Your task to perform on an android device: turn off notifications settings in the gmail app Image 0: 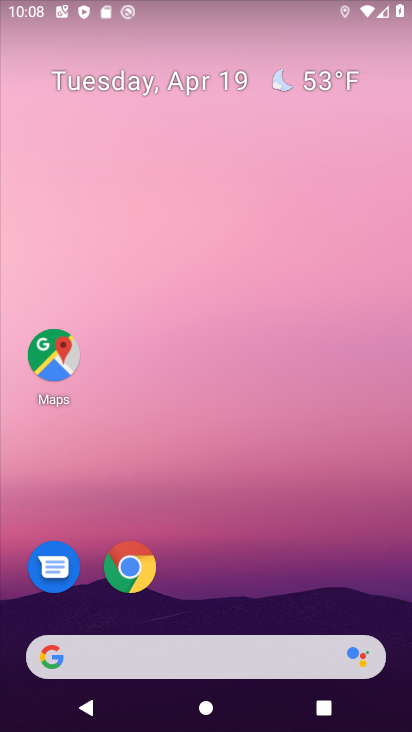
Step 0: drag from (317, 583) to (253, 85)
Your task to perform on an android device: turn off notifications settings in the gmail app Image 1: 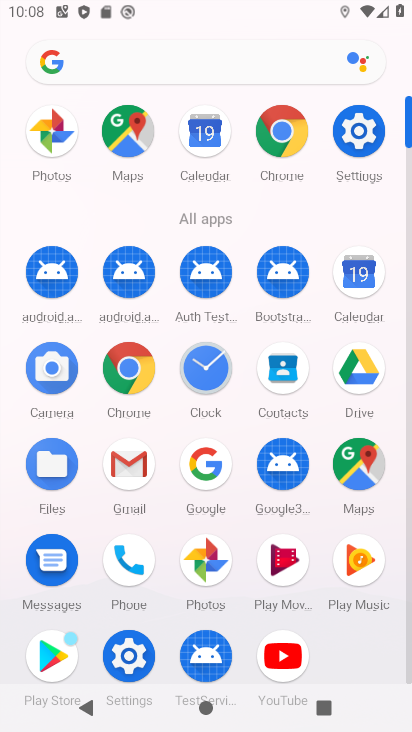
Step 1: click (145, 474)
Your task to perform on an android device: turn off notifications settings in the gmail app Image 2: 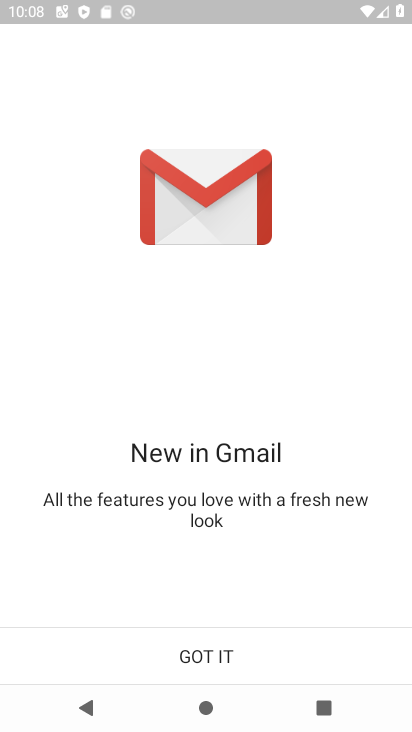
Step 2: click (208, 659)
Your task to perform on an android device: turn off notifications settings in the gmail app Image 3: 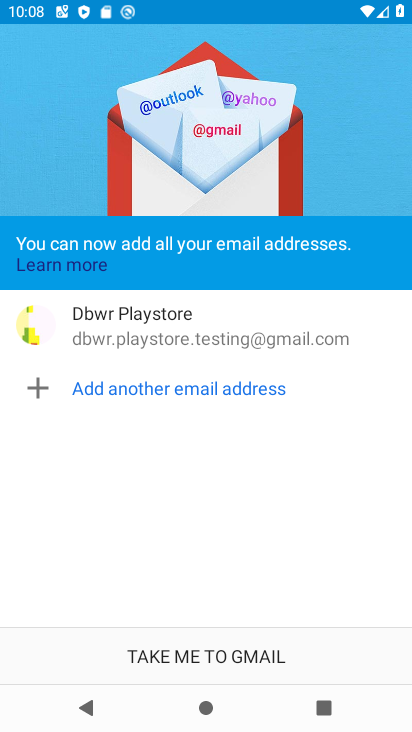
Step 3: click (203, 659)
Your task to perform on an android device: turn off notifications settings in the gmail app Image 4: 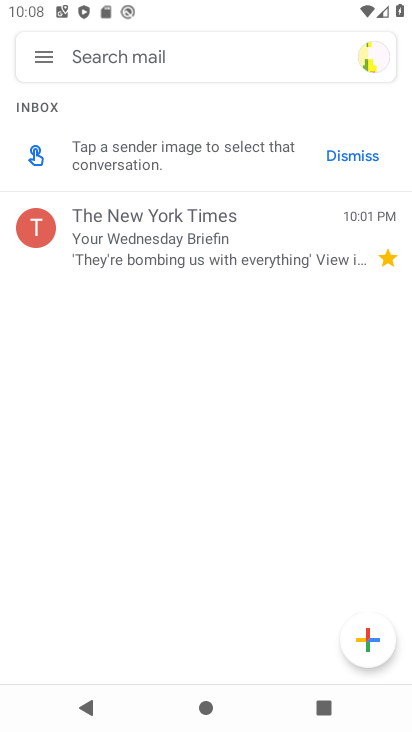
Step 4: click (55, 66)
Your task to perform on an android device: turn off notifications settings in the gmail app Image 5: 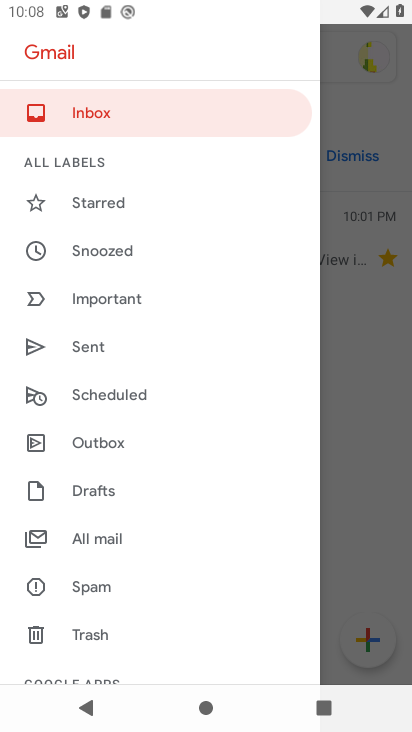
Step 5: drag from (168, 650) to (198, 263)
Your task to perform on an android device: turn off notifications settings in the gmail app Image 6: 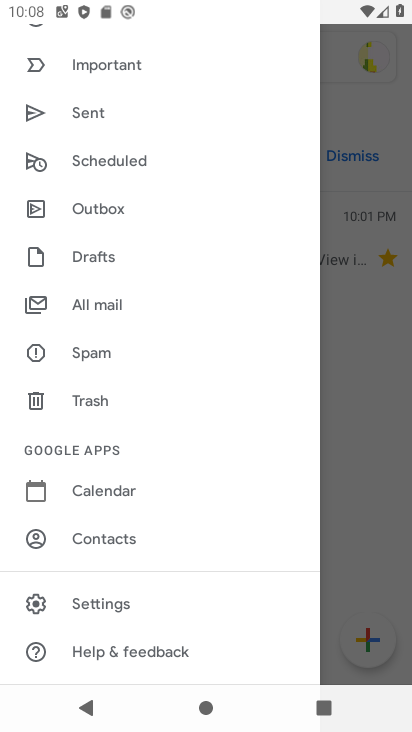
Step 6: click (215, 595)
Your task to perform on an android device: turn off notifications settings in the gmail app Image 7: 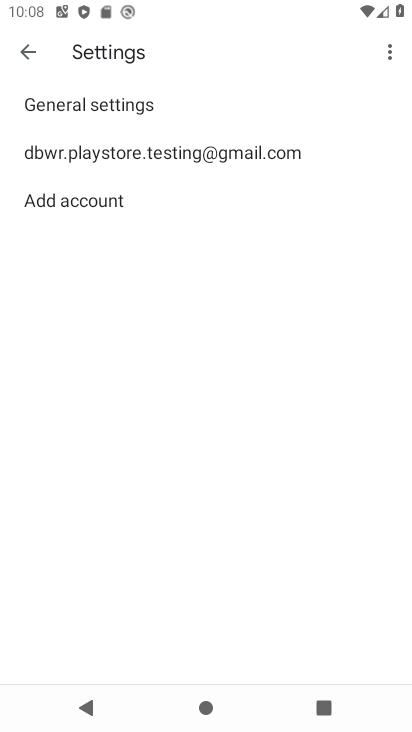
Step 7: click (300, 152)
Your task to perform on an android device: turn off notifications settings in the gmail app Image 8: 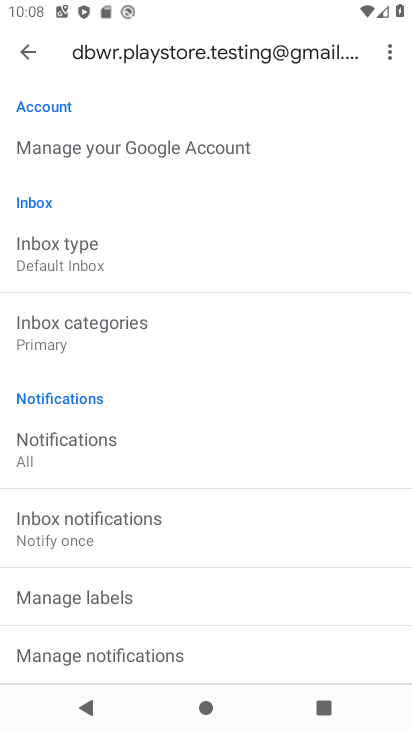
Step 8: drag from (254, 550) to (255, 336)
Your task to perform on an android device: turn off notifications settings in the gmail app Image 9: 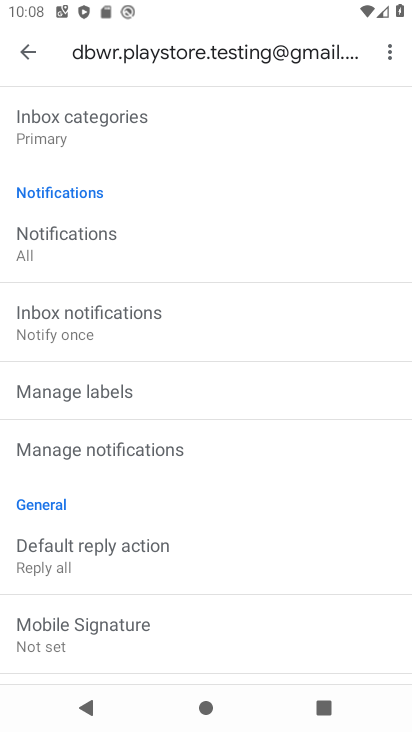
Step 9: click (247, 463)
Your task to perform on an android device: turn off notifications settings in the gmail app Image 10: 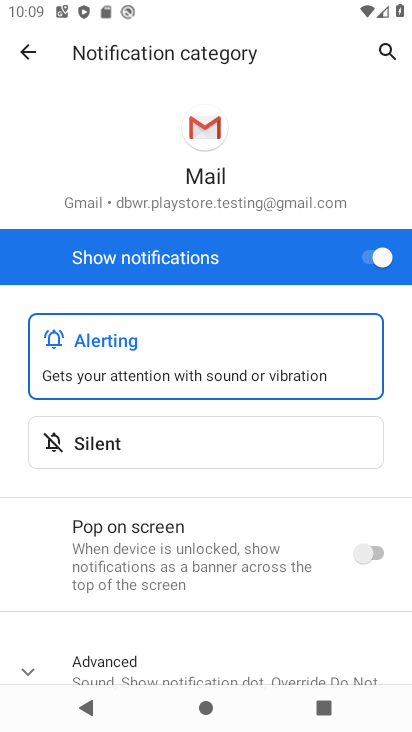
Step 10: task complete